Your task to perform on an android device: find which apps use the phone's location Image 0: 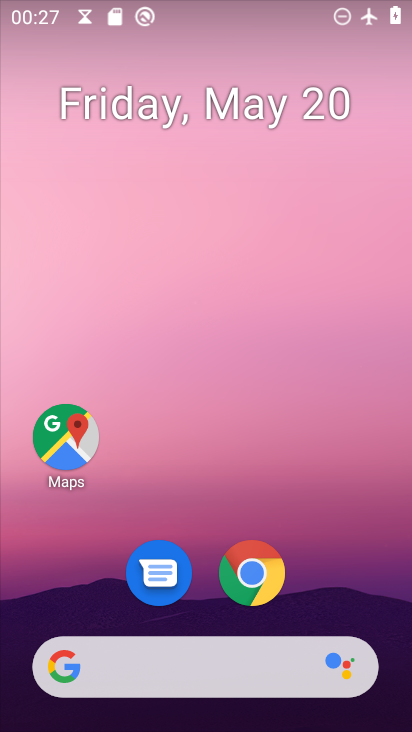
Step 0: drag from (227, 610) to (175, 6)
Your task to perform on an android device: find which apps use the phone's location Image 1: 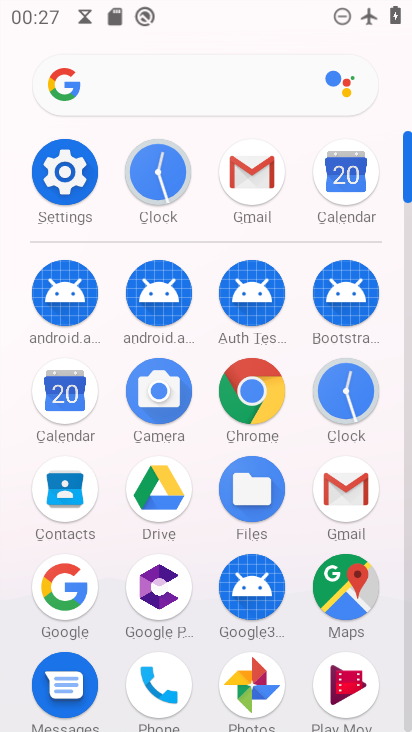
Step 1: click (59, 167)
Your task to perform on an android device: find which apps use the phone's location Image 2: 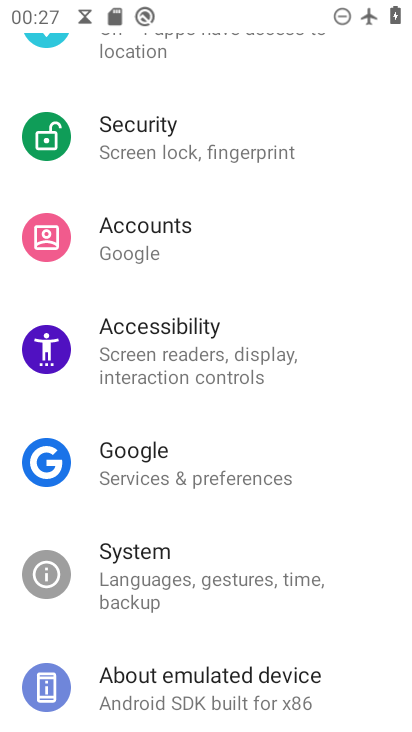
Step 2: drag from (149, 221) to (170, 560)
Your task to perform on an android device: find which apps use the phone's location Image 3: 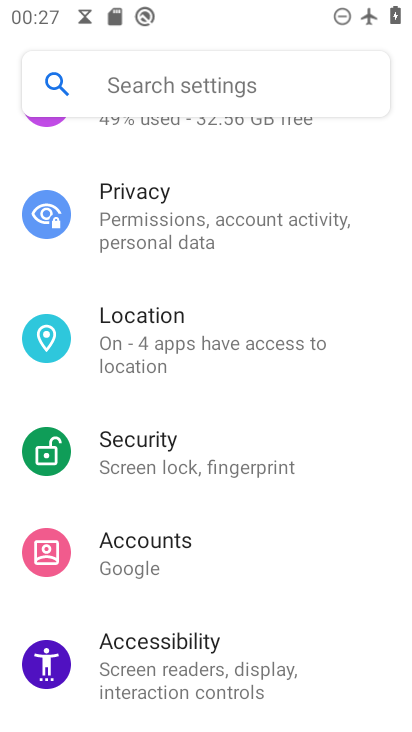
Step 3: click (201, 343)
Your task to perform on an android device: find which apps use the phone's location Image 4: 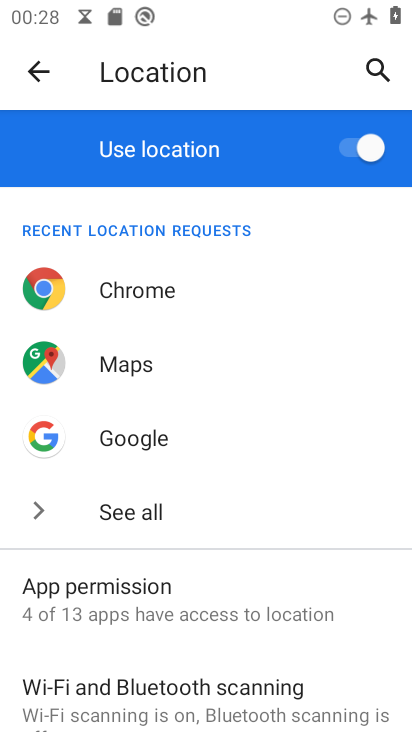
Step 4: drag from (263, 680) to (271, 492)
Your task to perform on an android device: find which apps use the phone's location Image 5: 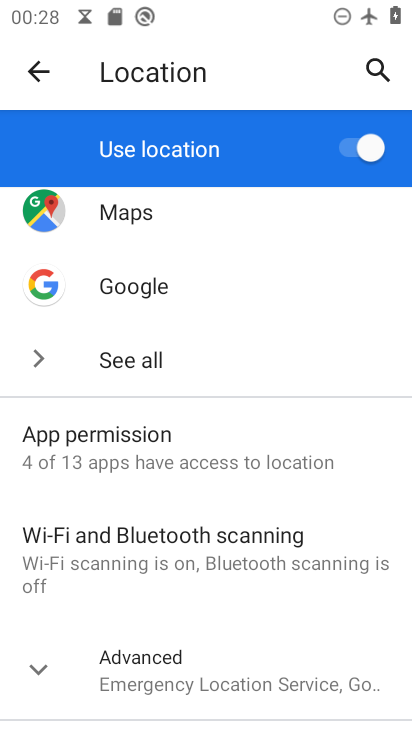
Step 5: click (210, 446)
Your task to perform on an android device: find which apps use the phone's location Image 6: 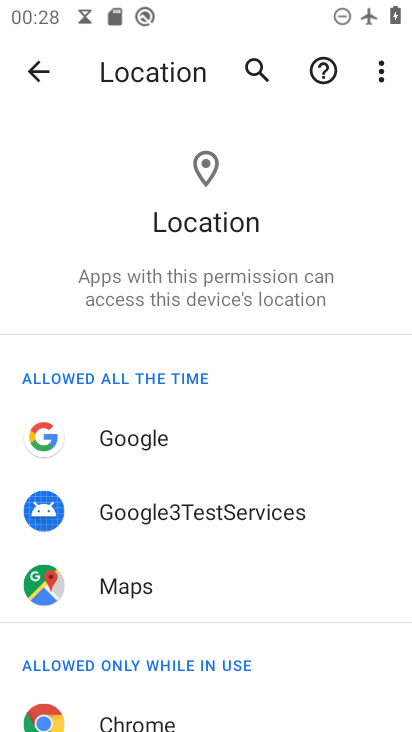
Step 6: task complete